Your task to perform on an android device: Open the phone app and click the voicemail tab. Image 0: 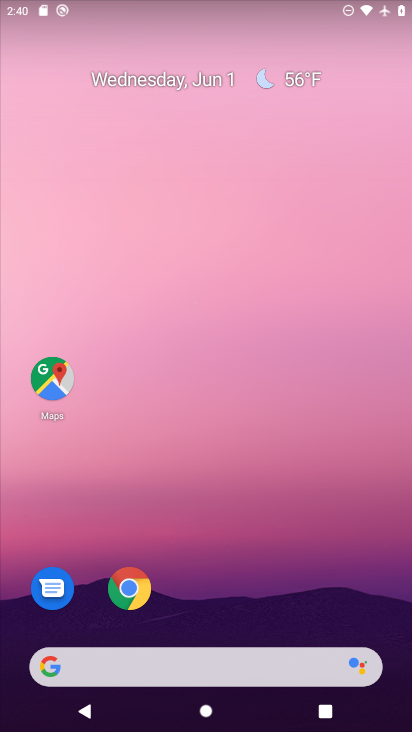
Step 0: drag from (299, 580) to (248, 44)
Your task to perform on an android device: Open the phone app and click the voicemail tab. Image 1: 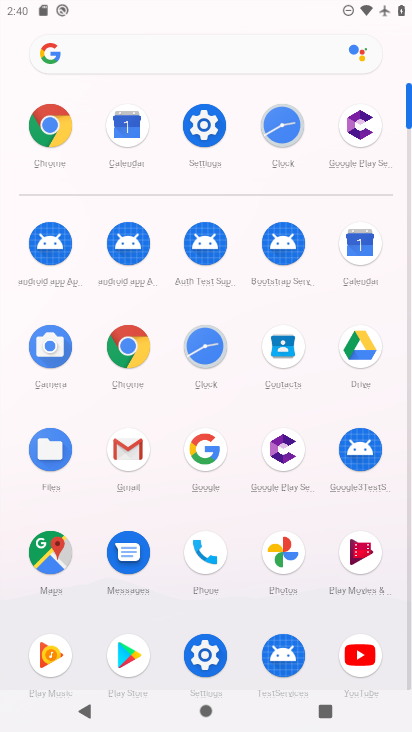
Step 1: click (198, 562)
Your task to perform on an android device: Open the phone app and click the voicemail tab. Image 2: 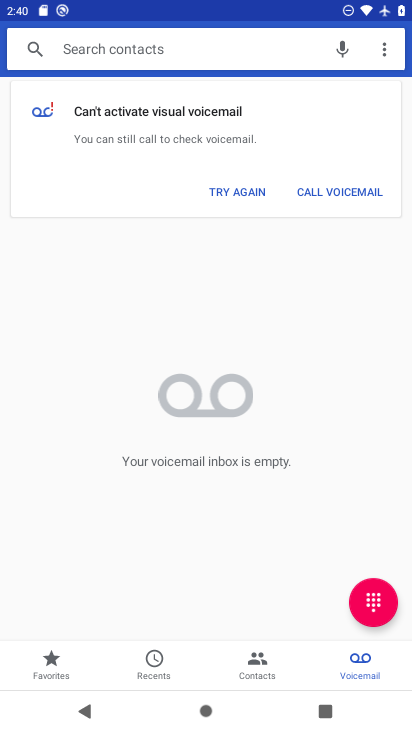
Step 2: task complete